Your task to perform on an android device: Do I have any events today? Image 0: 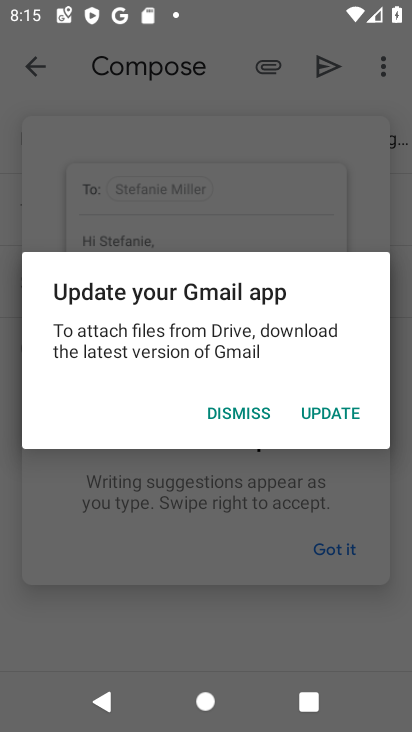
Step 0: press home button
Your task to perform on an android device: Do I have any events today? Image 1: 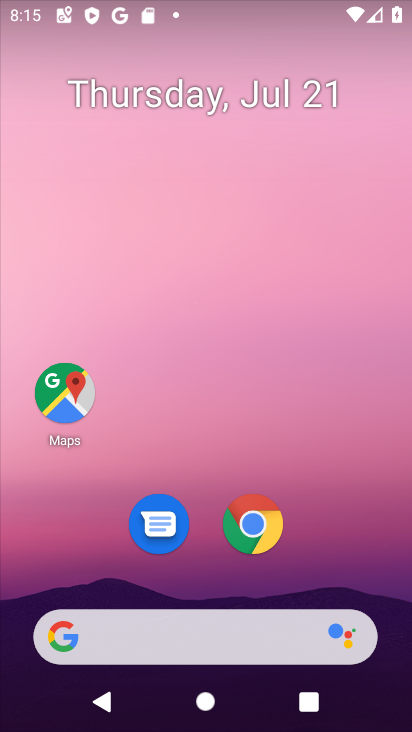
Step 1: drag from (218, 639) to (281, 142)
Your task to perform on an android device: Do I have any events today? Image 2: 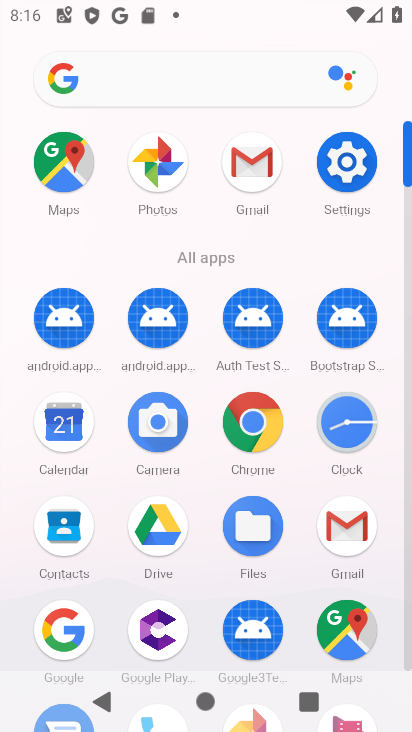
Step 2: click (66, 418)
Your task to perform on an android device: Do I have any events today? Image 3: 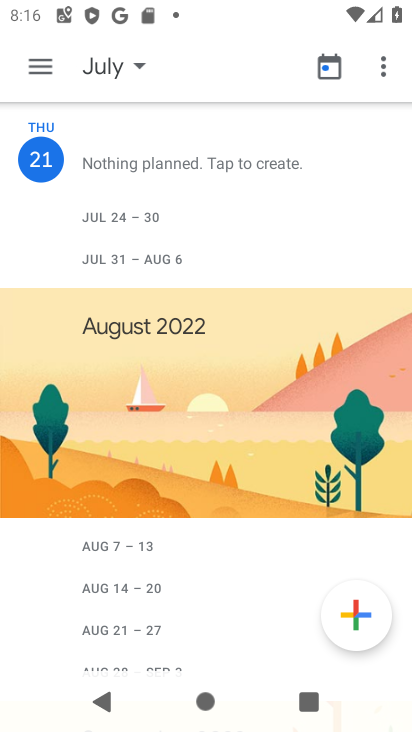
Step 3: task complete